Your task to perform on an android device: Go to notification settings Image 0: 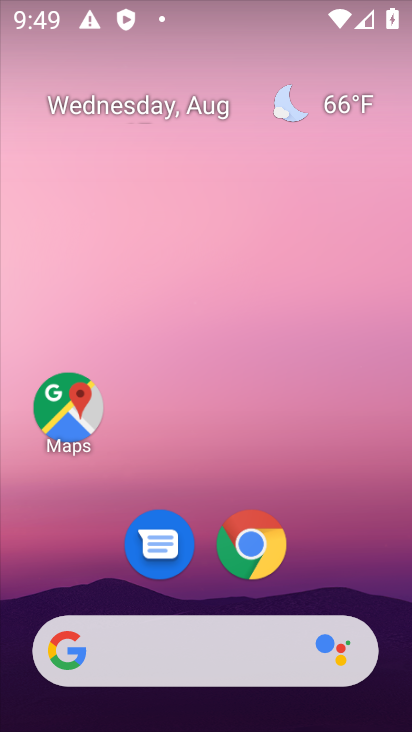
Step 0: drag from (226, 469) to (265, 37)
Your task to perform on an android device: Go to notification settings Image 1: 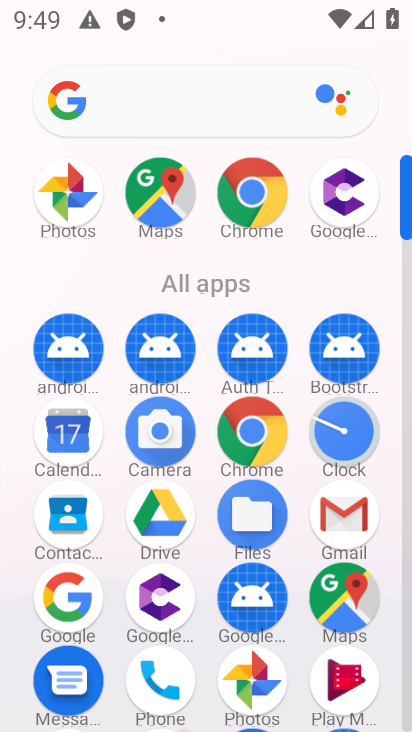
Step 1: drag from (304, 561) to (311, 305)
Your task to perform on an android device: Go to notification settings Image 2: 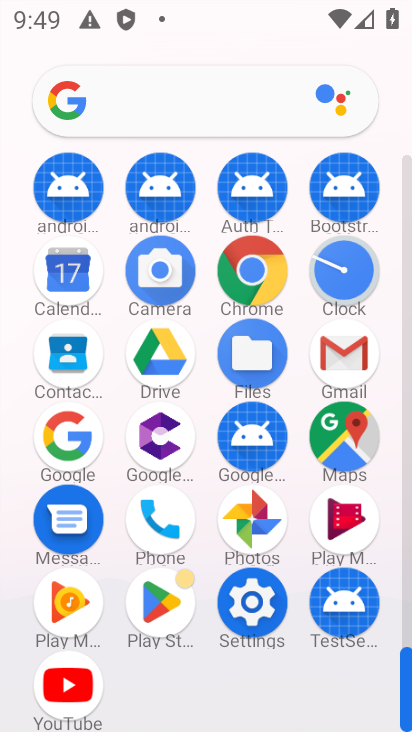
Step 2: click (258, 597)
Your task to perform on an android device: Go to notification settings Image 3: 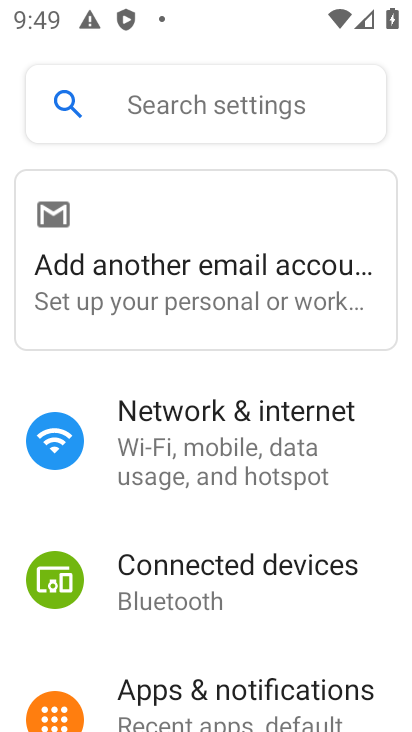
Step 3: task complete